Your task to perform on an android device: Open Youtube and go to "Your channel" Image 0: 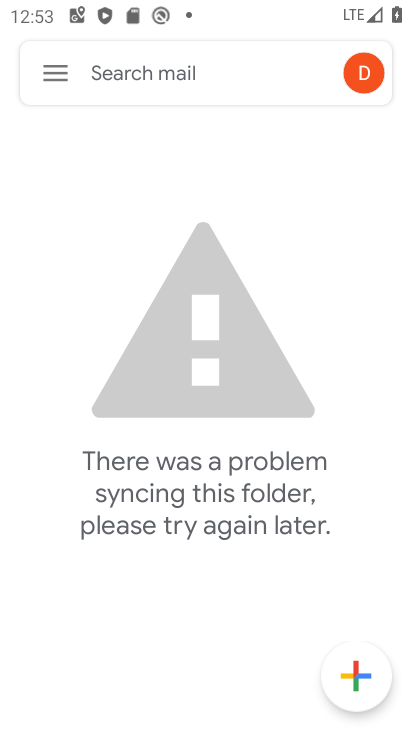
Step 0: press home button
Your task to perform on an android device: Open Youtube and go to "Your channel" Image 1: 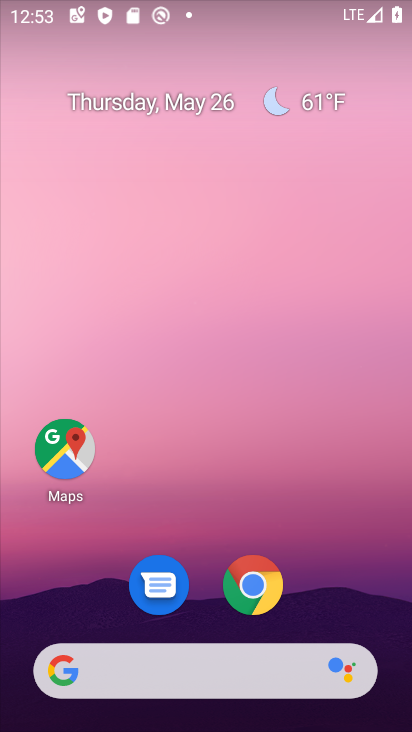
Step 1: drag from (264, 498) to (348, 39)
Your task to perform on an android device: Open Youtube and go to "Your channel" Image 2: 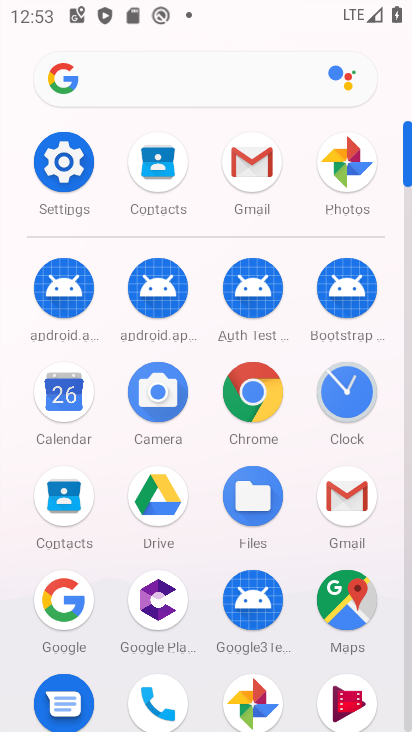
Step 2: drag from (297, 481) to (272, 98)
Your task to perform on an android device: Open Youtube and go to "Your channel" Image 3: 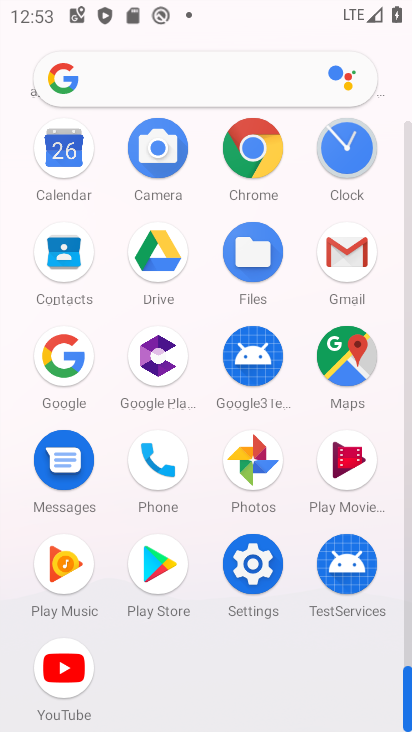
Step 3: click (71, 652)
Your task to perform on an android device: Open Youtube and go to "Your channel" Image 4: 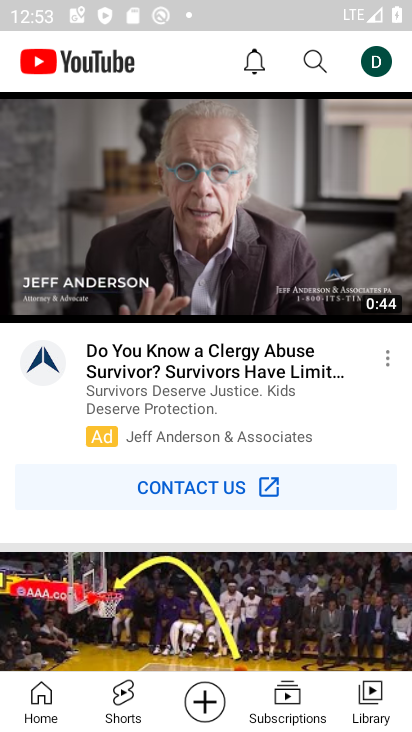
Step 4: click (367, 48)
Your task to perform on an android device: Open Youtube and go to "Your channel" Image 5: 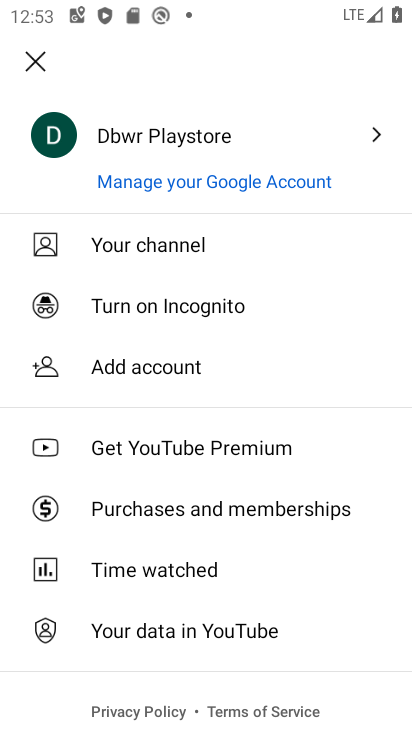
Step 5: click (169, 255)
Your task to perform on an android device: Open Youtube and go to "Your channel" Image 6: 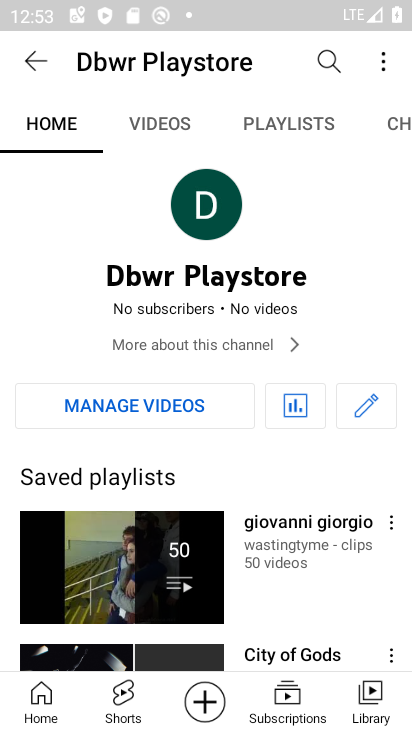
Step 6: task complete